Your task to perform on an android device: Go to privacy settings Image 0: 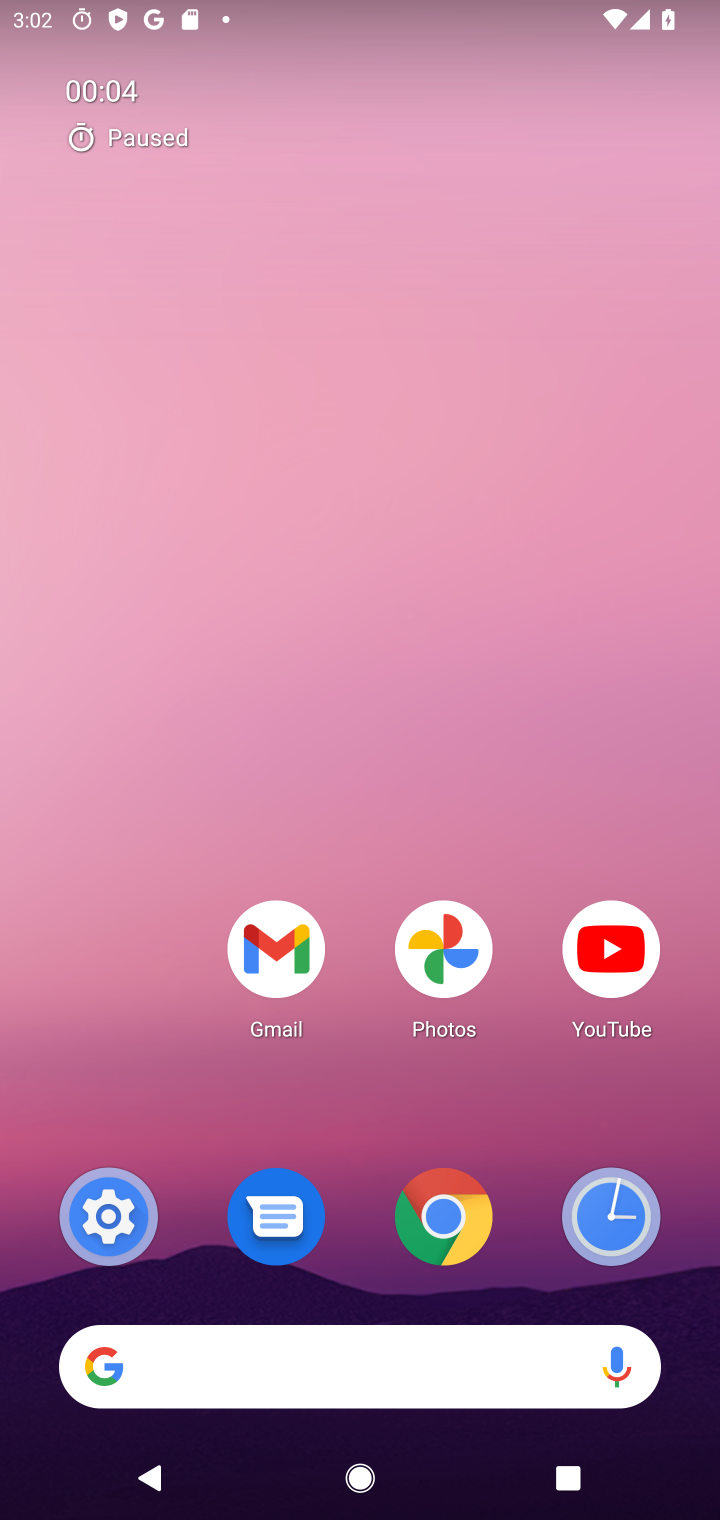
Step 0: click (117, 1252)
Your task to perform on an android device: Go to privacy settings Image 1: 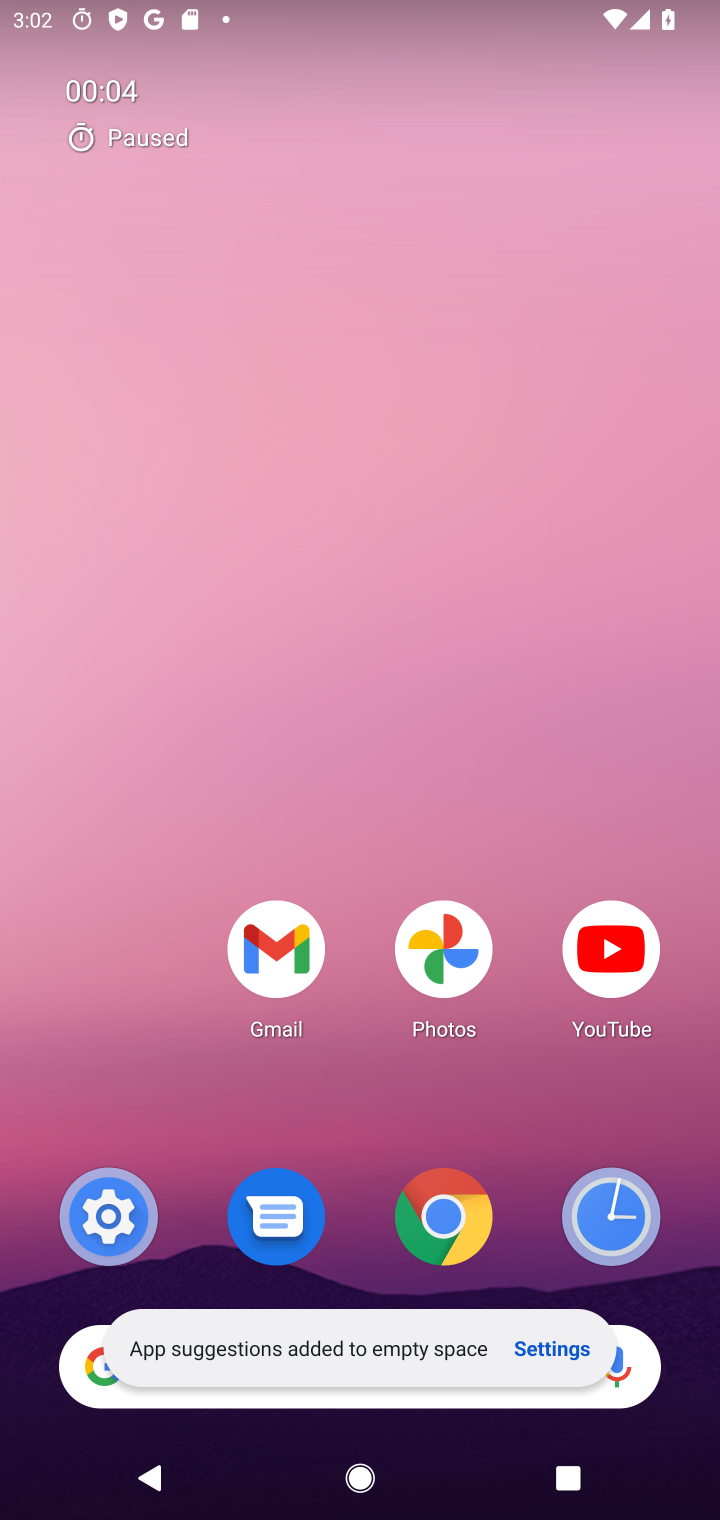
Step 1: click (115, 1222)
Your task to perform on an android device: Go to privacy settings Image 2: 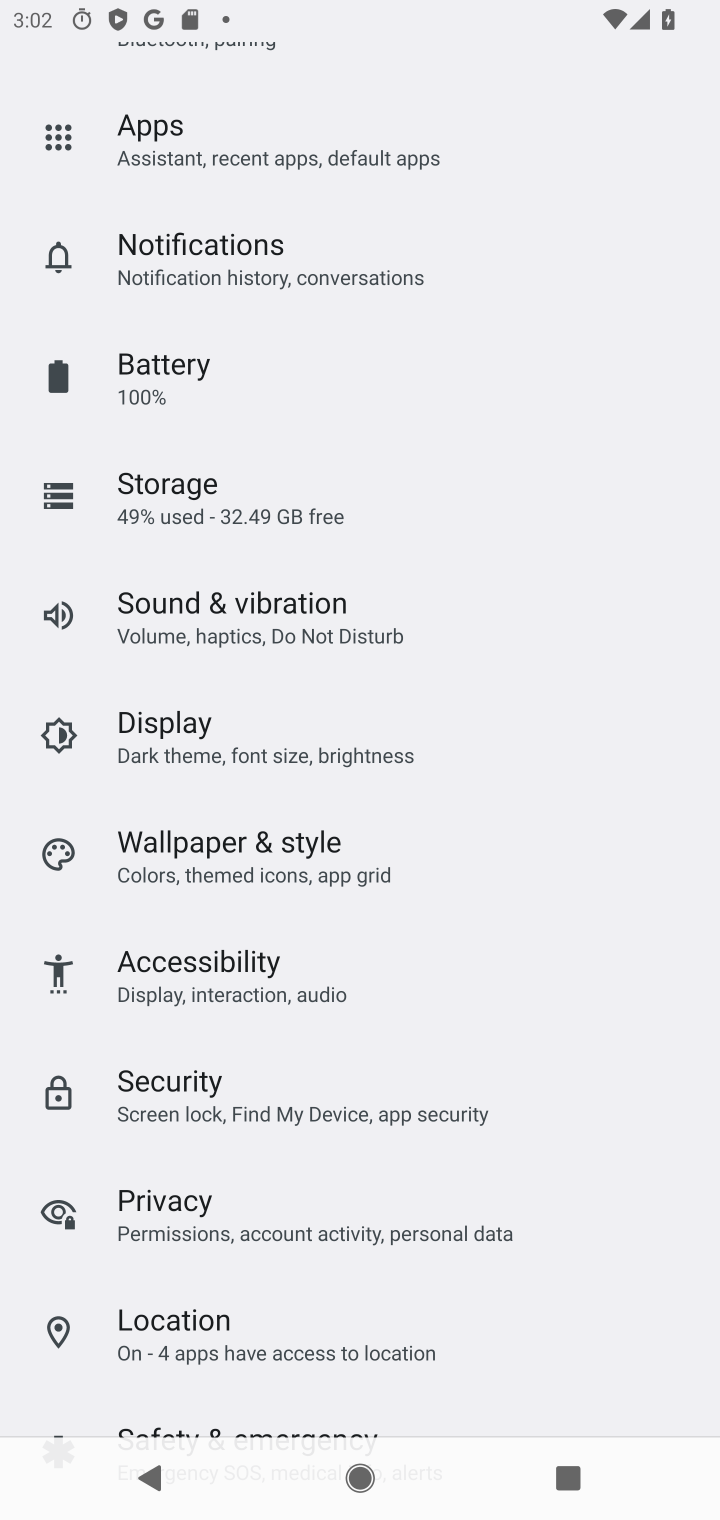
Step 2: click (201, 1202)
Your task to perform on an android device: Go to privacy settings Image 3: 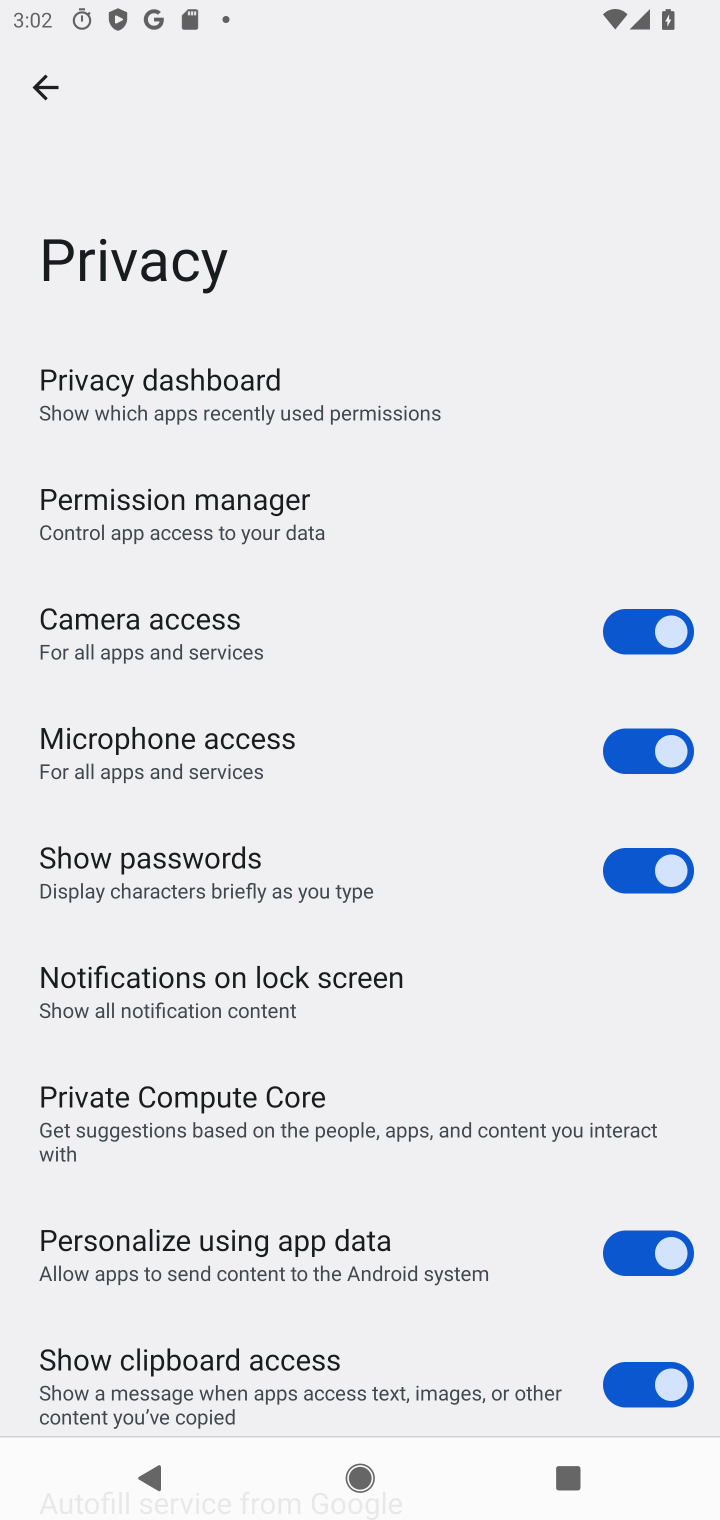
Step 3: task complete